Your task to perform on an android device: allow notifications from all sites in the chrome app Image 0: 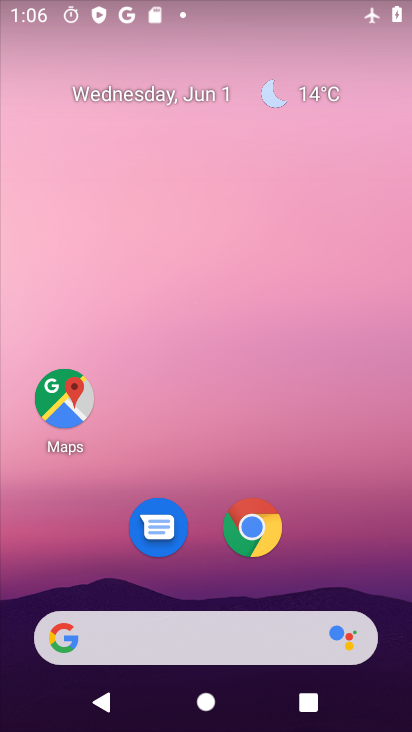
Step 0: drag from (189, 631) to (293, 175)
Your task to perform on an android device: allow notifications from all sites in the chrome app Image 1: 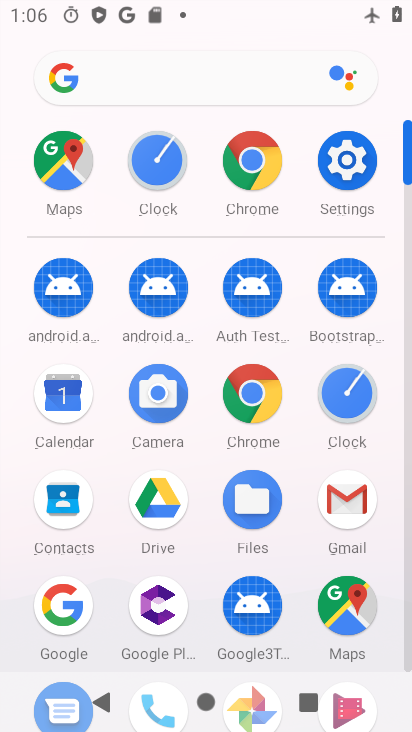
Step 1: click (254, 171)
Your task to perform on an android device: allow notifications from all sites in the chrome app Image 2: 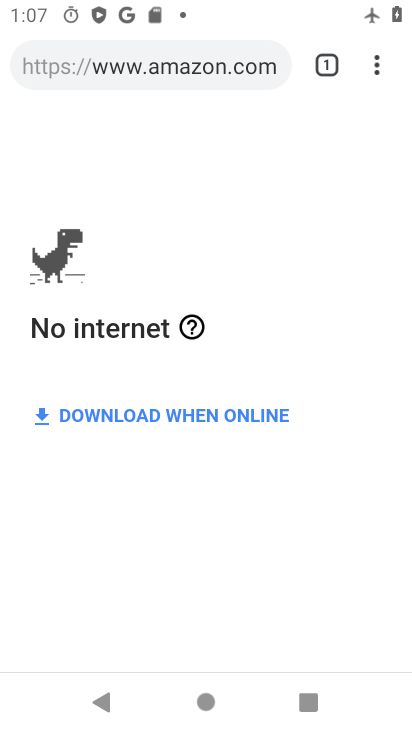
Step 2: click (379, 76)
Your task to perform on an android device: allow notifications from all sites in the chrome app Image 3: 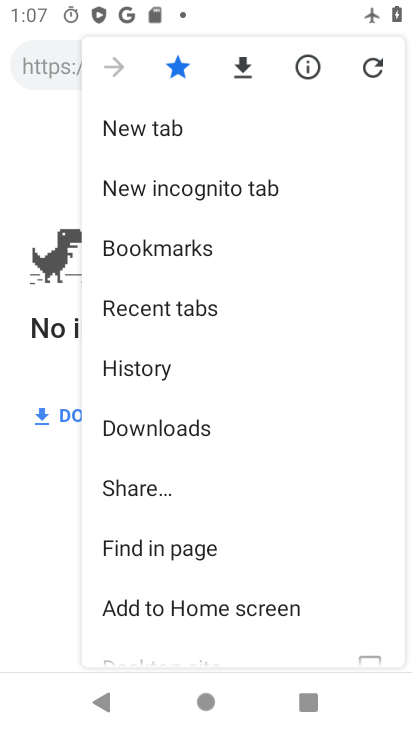
Step 3: drag from (195, 553) to (311, 167)
Your task to perform on an android device: allow notifications from all sites in the chrome app Image 4: 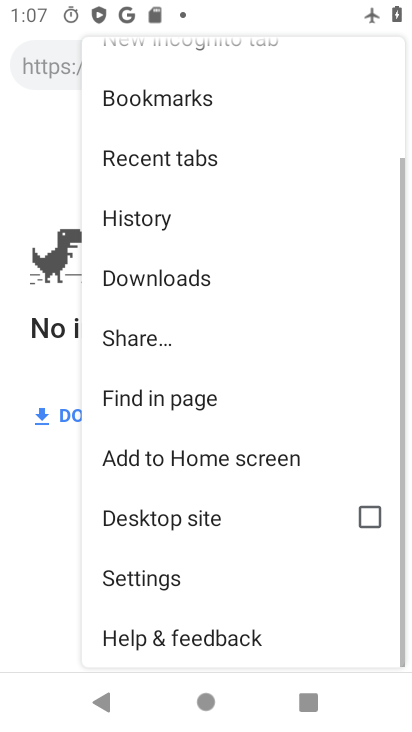
Step 4: click (154, 578)
Your task to perform on an android device: allow notifications from all sites in the chrome app Image 5: 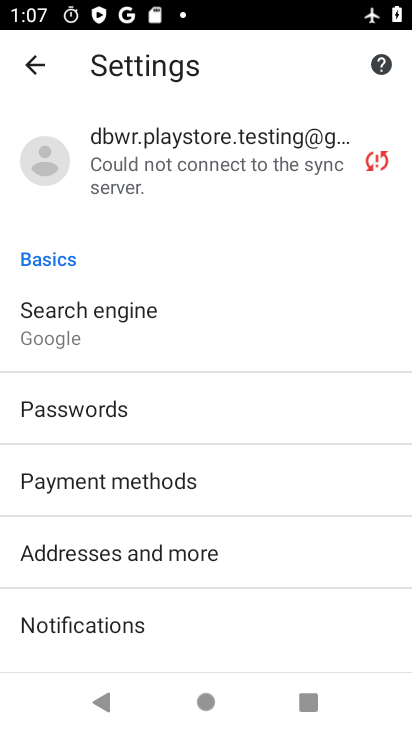
Step 5: drag from (147, 598) to (186, 449)
Your task to perform on an android device: allow notifications from all sites in the chrome app Image 6: 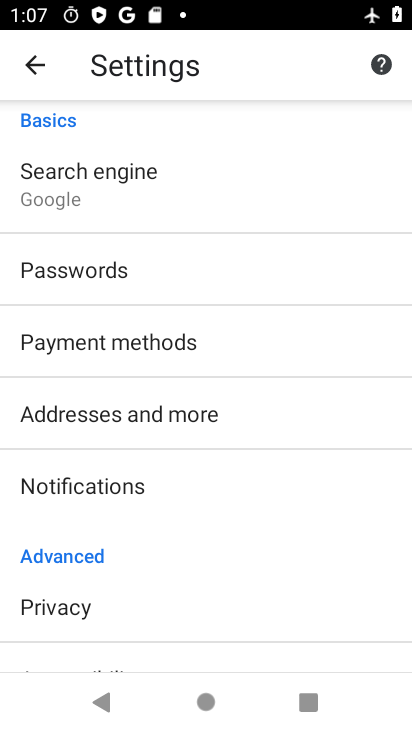
Step 6: click (119, 494)
Your task to perform on an android device: allow notifications from all sites in the chrome app Image 7: 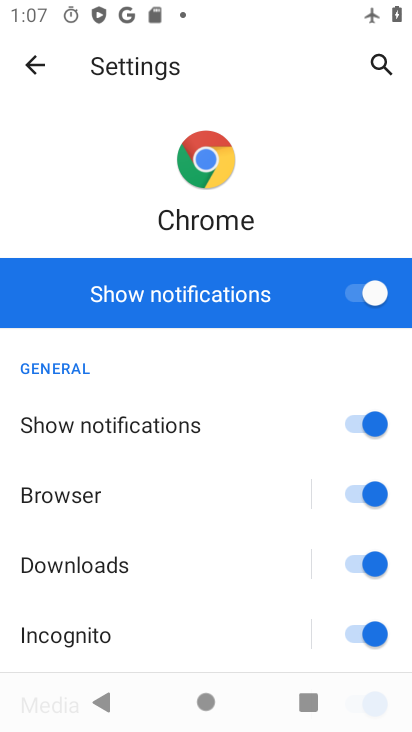
Step 7: task complete